Your task to perform on an android device: open app "Messages" Image 0: 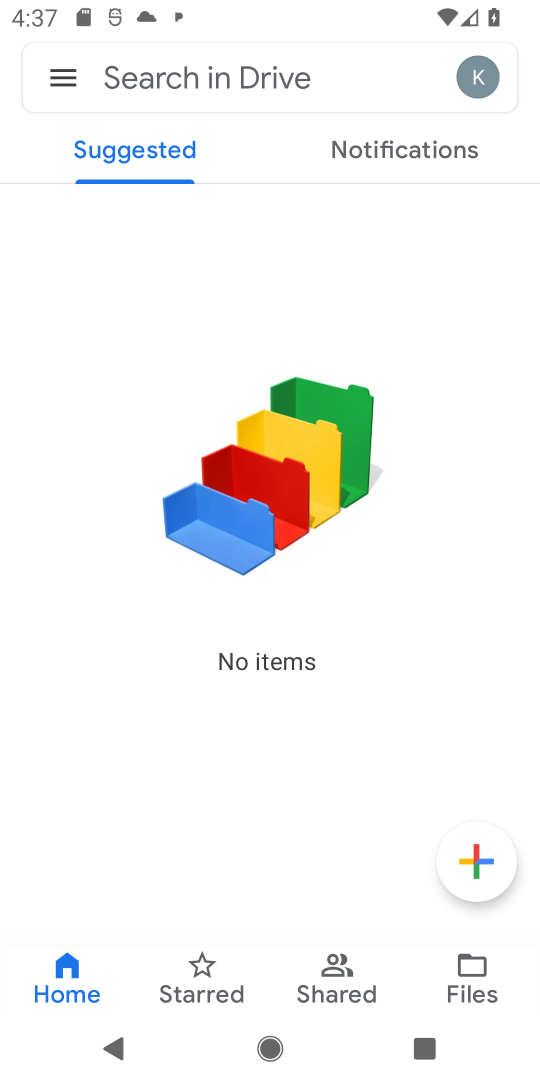
Step 0: press back button
Your task to perform on an android device: open app "Messages" Image 1: 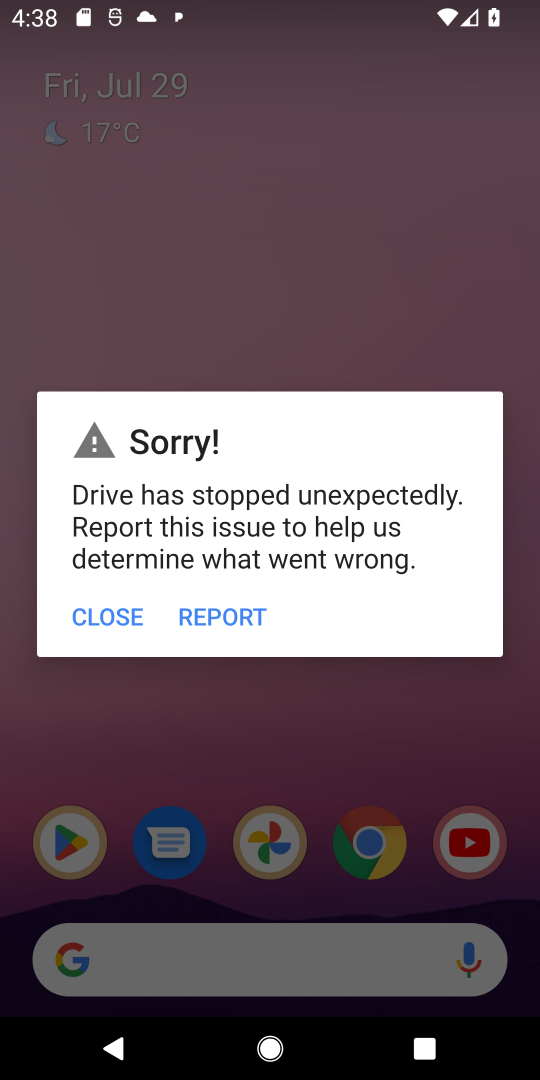
Step 1: click (75, 616)
Your task to perform on an android device: open app "Messages" Image 2: 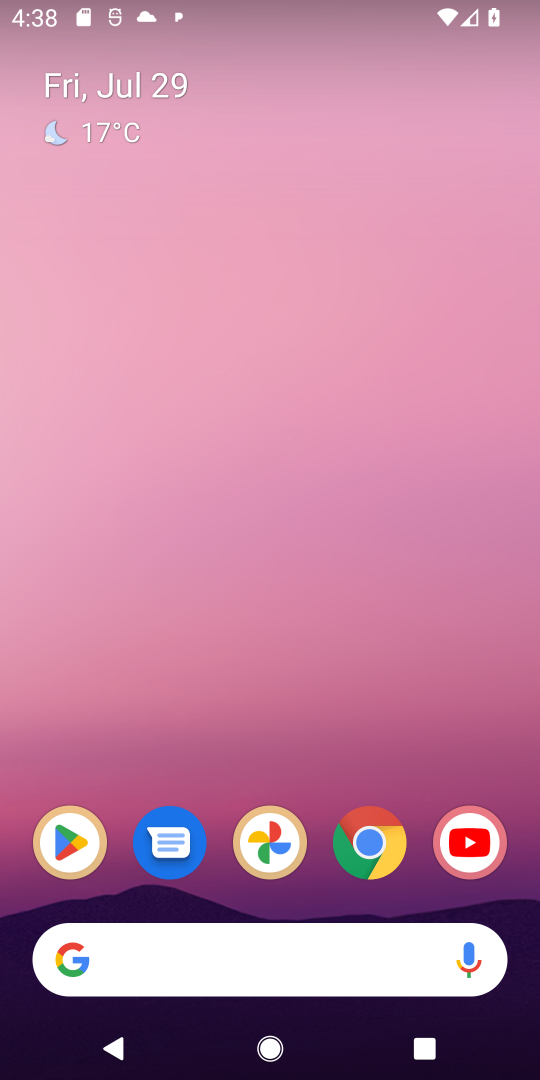
Step 2: click (75, 841)
Your task to perform on an android device: open app "Messages" Image 3: 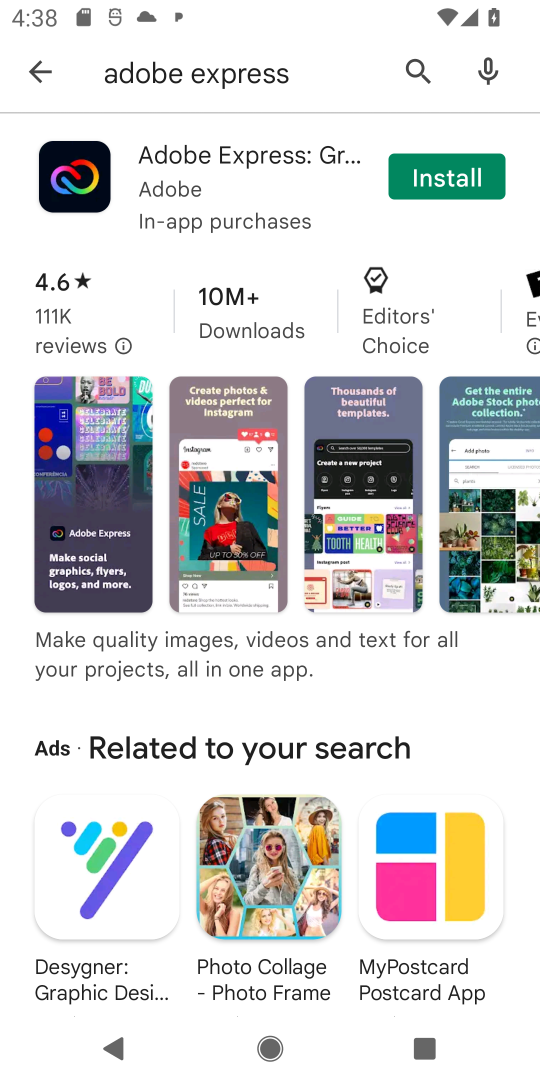
Step 3: click (403, 61)
Your task to perform on an android device: open app "Messages" Image 4: 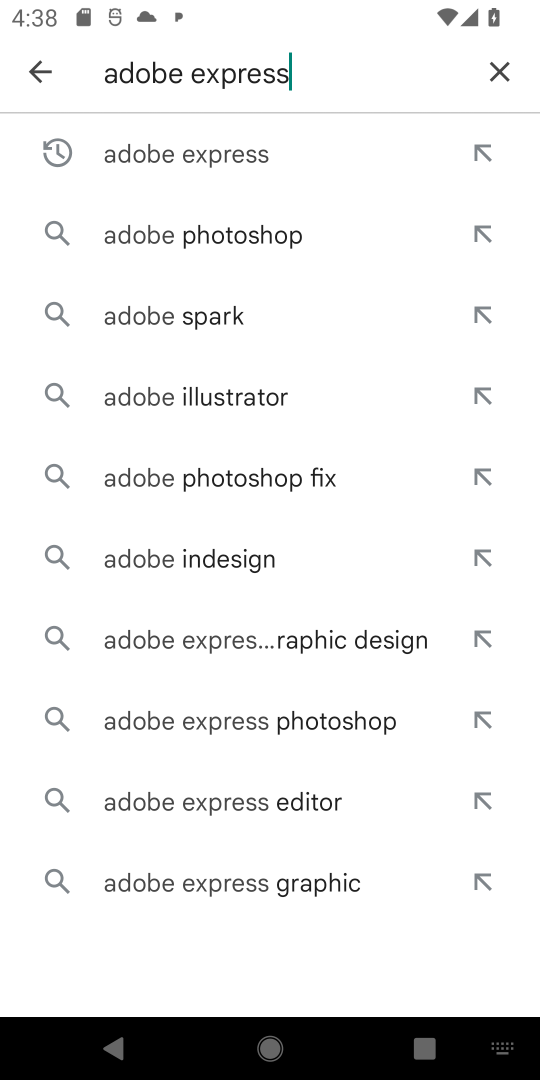
Step 4: click (499, 71)
Your task to perform on an android device: open app "Messages" Image 5: 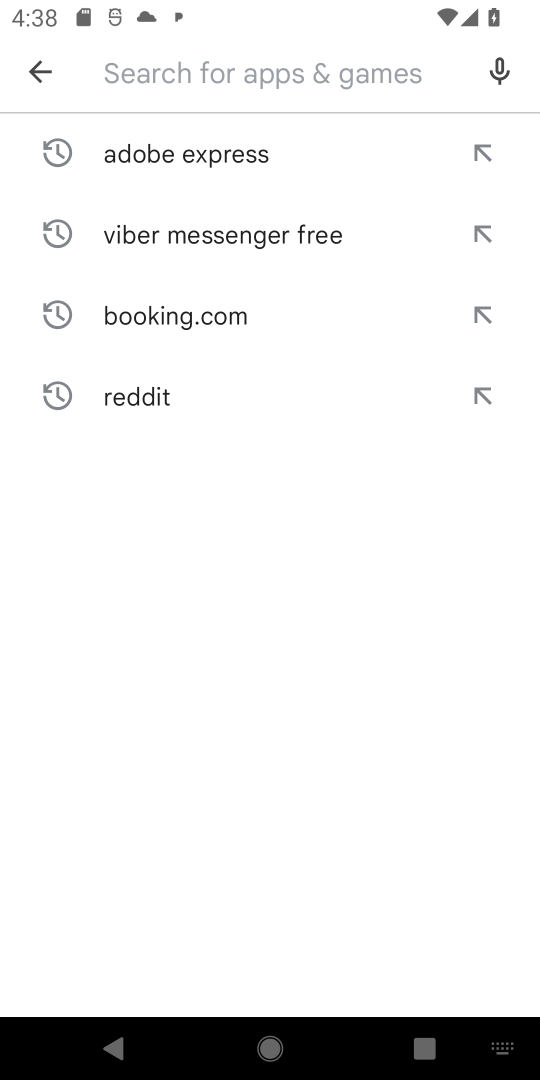
Step 5: click (185, 57)
Your task to perform on an android device: open app "Messages" Image 6: 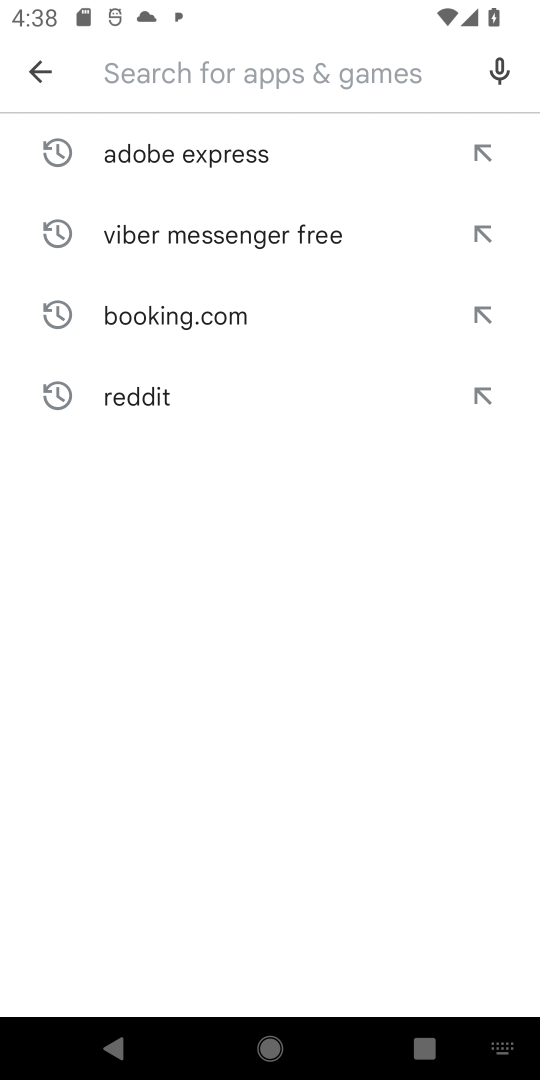
Step 6: type "messages"
Your task to perform on an android device: open app "Messages" Image 7: 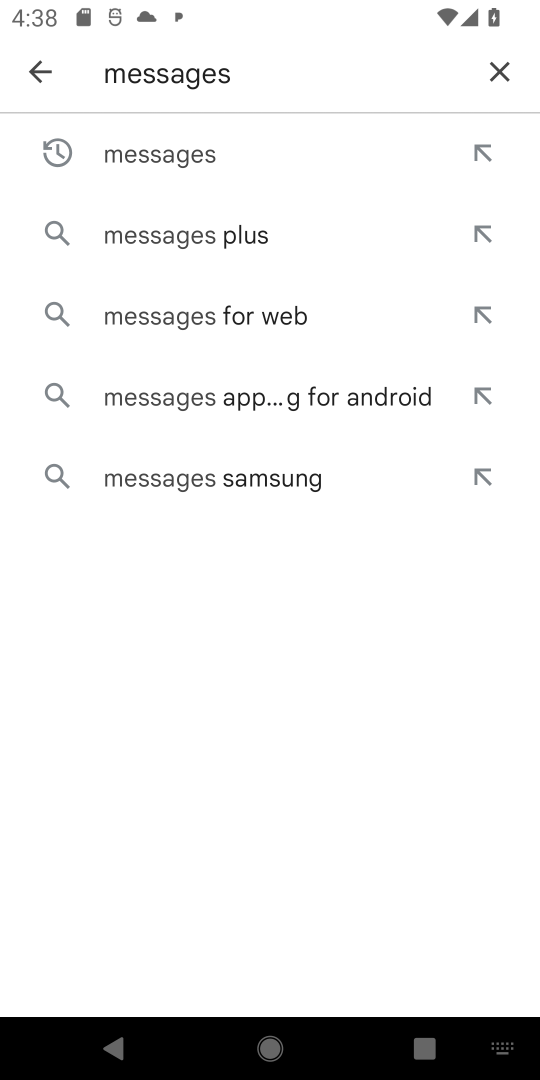
Step 7: click (218, 147)
Your task to perform on an android device: open app "Messages" Image 8: 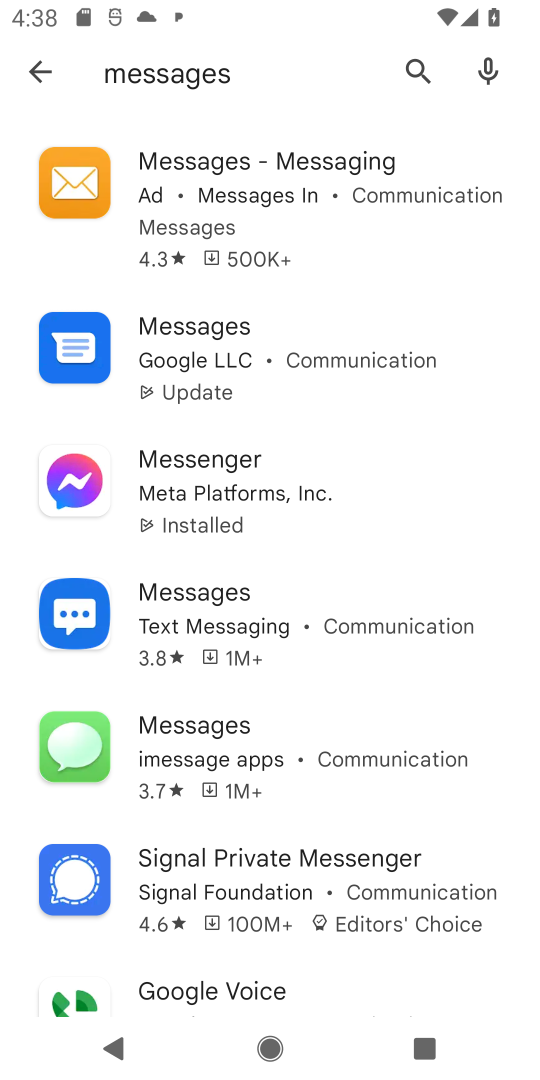
Step 8: click (265, 353)
Your task to perform on an android device: open app "Messages" Image 9: 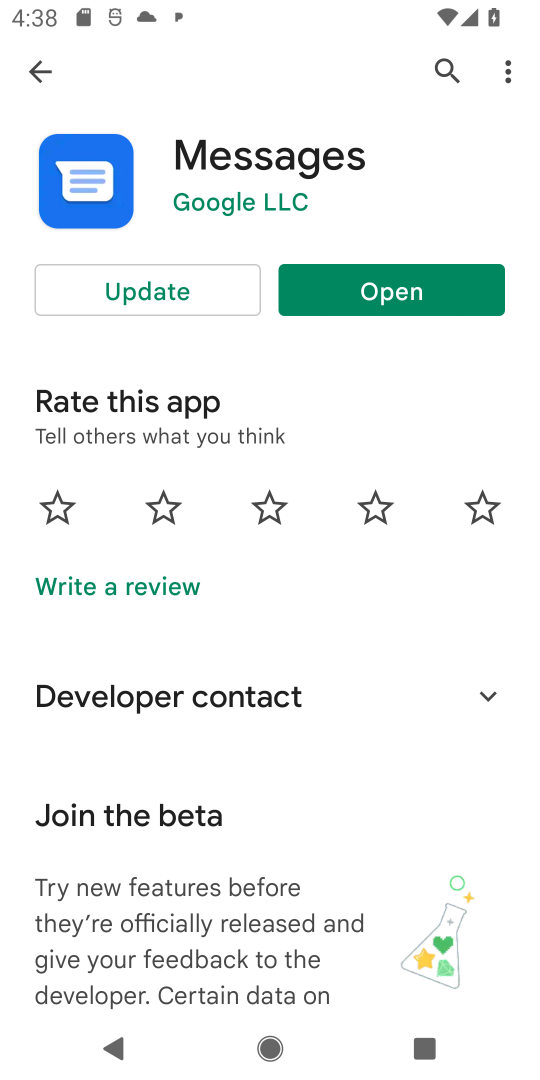
Step 9: click (376, 293)
Your task to perform on an android device: open app "Messages" Image 10: 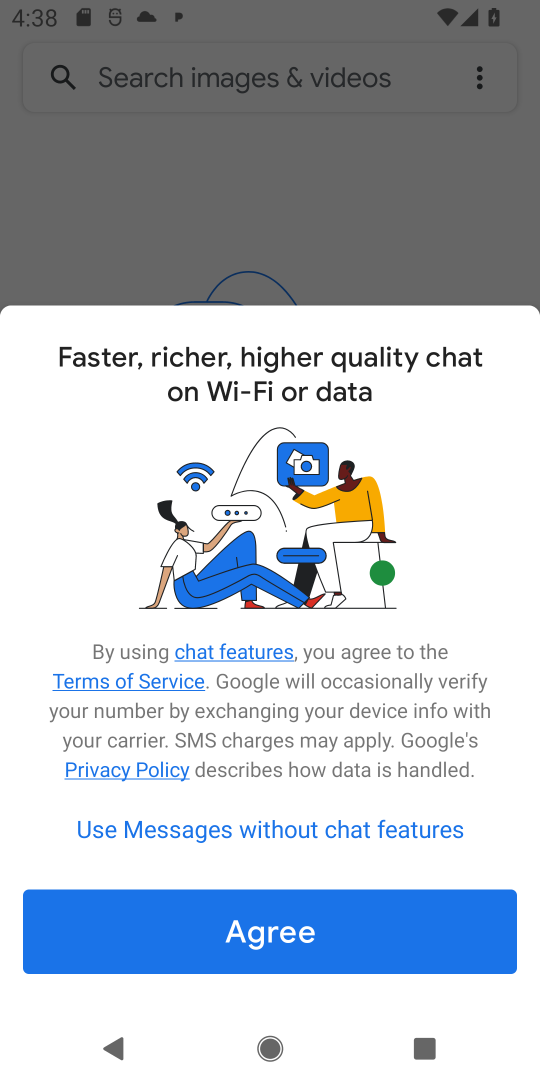
Step 10: task complete